Your task to perform on an android device: manage bookmarks in the chrome app Image 0: 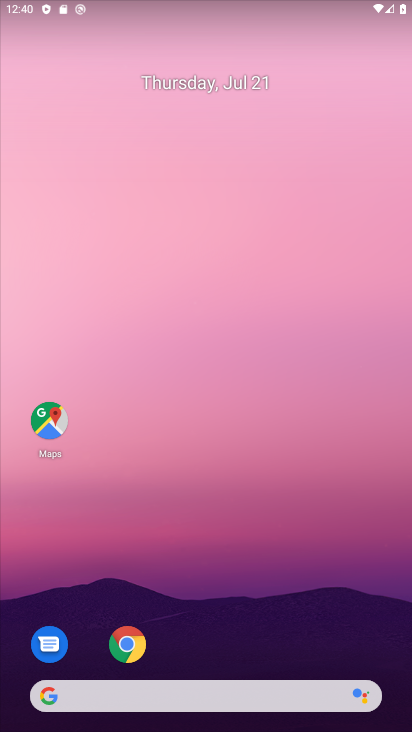
Step 0: click (114, 654)
Your task to perform on an android device: manage bookmarks in the chrome app Image 1: 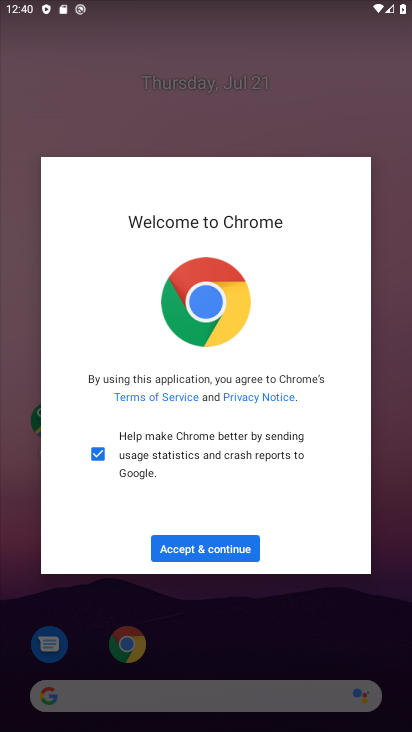
Step 1: click (236, 537)
Your task to perform on an android device: manage bookmarks in the chrome app Image 2: 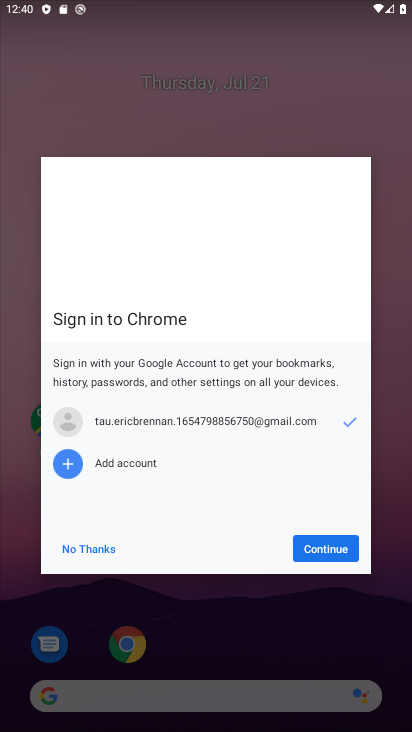
Step 2: click (305, 547)
Your task to perform on an android device: manage bookmarks in the chrome app Image 3: 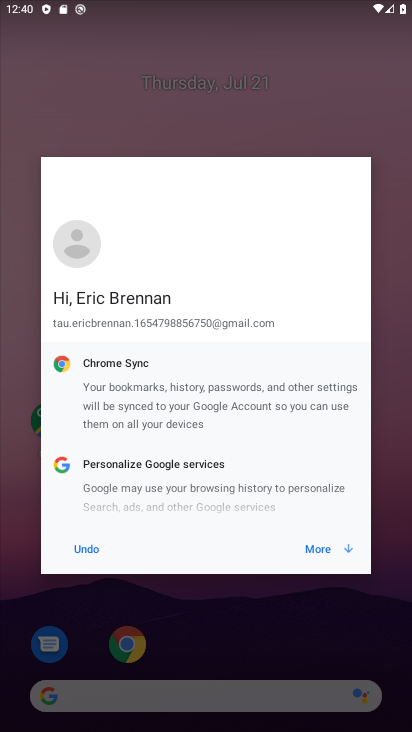
Step 3: click (313, 552)
Your task to perform on an android device: manage bookmarks in the chrome app Image 4: 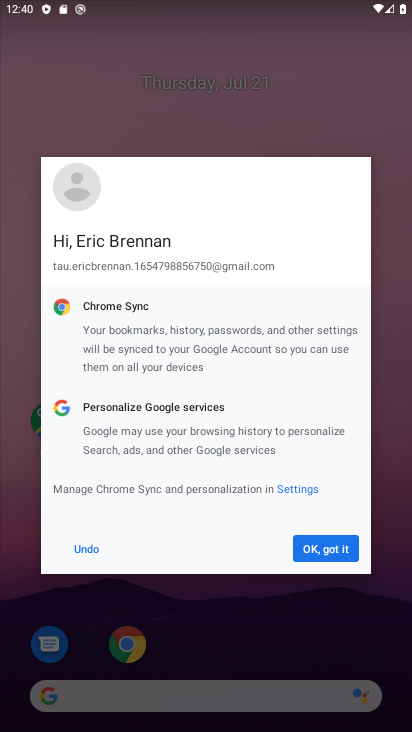
Step 4: click (337, 540)
Your task to perform on an android device: manage bookmarks in the chrome app Image 5: 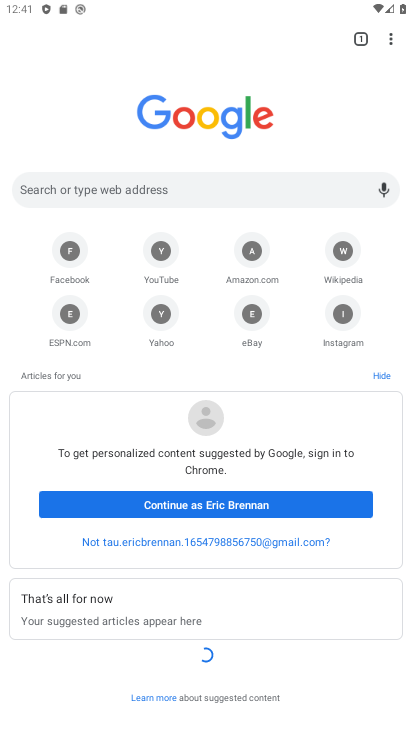
Step 5: click (389, 43)
Your task to perform on an android device: manage bookmarks in the chrome app Image 6: 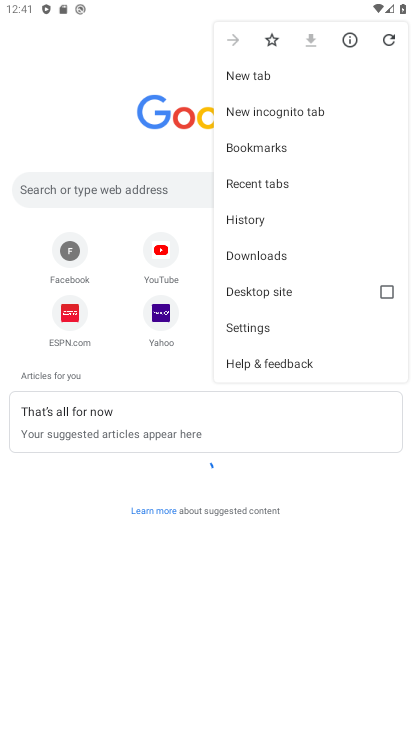
Step 6: click (239, 217)
Your task to perform on an android device: manage bookmarks in the chrome app Image 7: 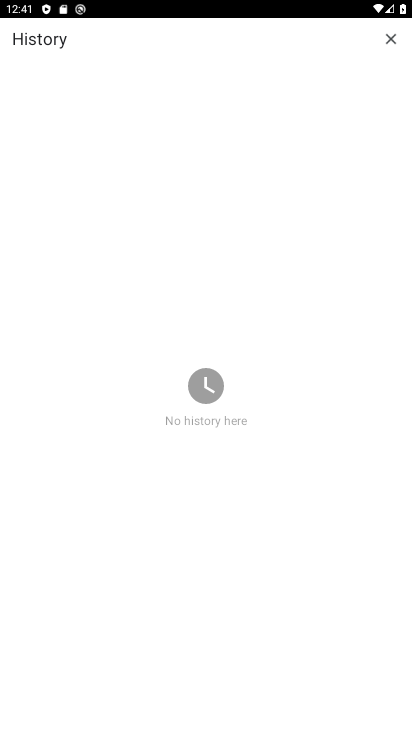
Step 7: click (368, 27)
Your task to perform on an android device: manage bookmarks in the chrome app Image 8: 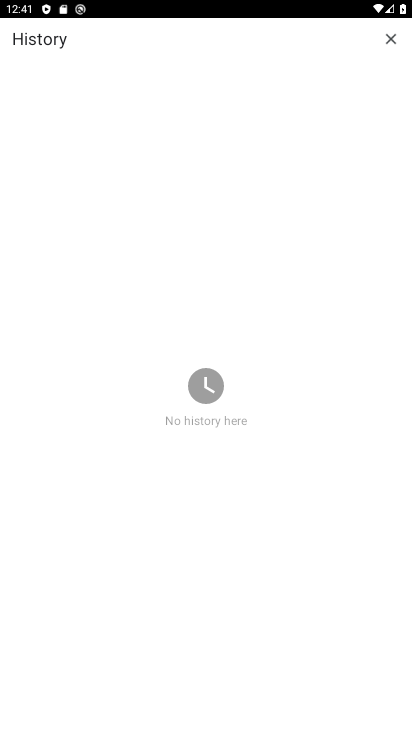
Step 8: click (388, 39)
Your task to perform on an android device: manage bookmarks in the chrome app Image 9: 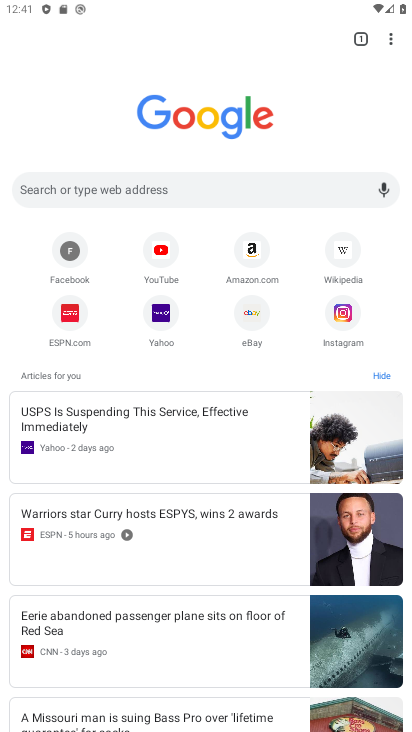
Step 9: click (388, 39)
Your task to perform on an android device: manage bookmarks in the chrome app Image 10: 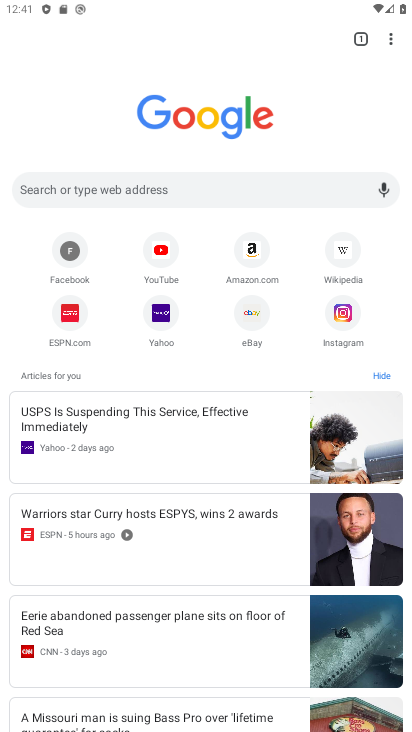
Step 10: task complete